Your task to perform on an android device: open app "Messages" (install if not already installed) Image 0: 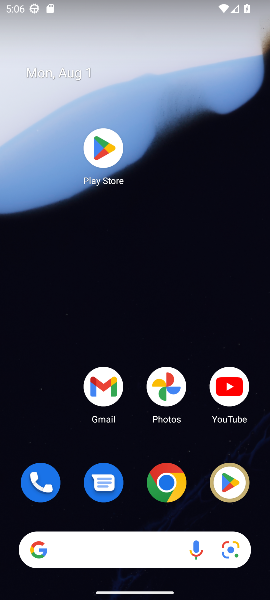
Step 0: click (97, 142)
Your task to perform on an android device: open app "Messages" (install if not already installed) Image 1: 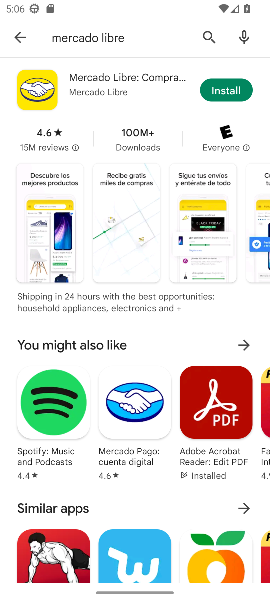
Step 1: click (208, 29)
Your task to perform on an android device: open app "Messages" (install if not already installed) Image 2: 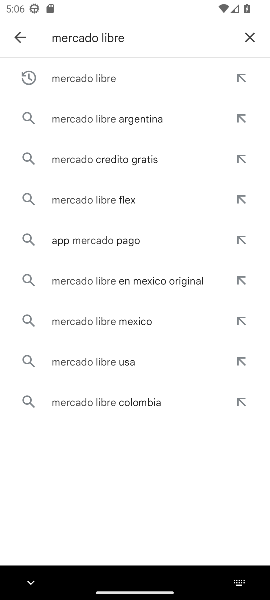
Step 2: click (243, 39)
Your task to perform on an android device: open app "Messages" (install if not already installed) Image 3: 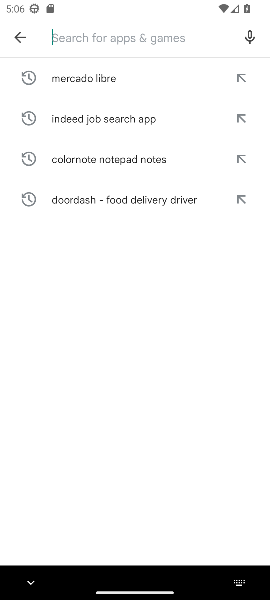
Step 3: type "Messages"
Your task to perform on an android device: open app "Messages" (install if not already installed) Image 4: 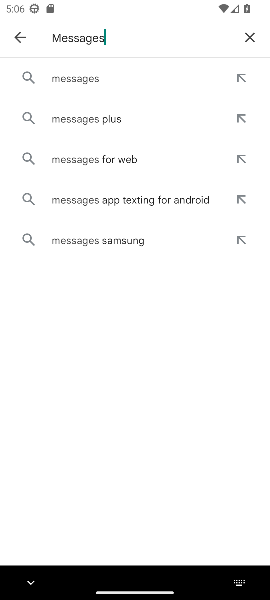
Step 4: click (89, 75)
Your task to perform on an android device: open app "Messages" (install if not already installed) Image 5: 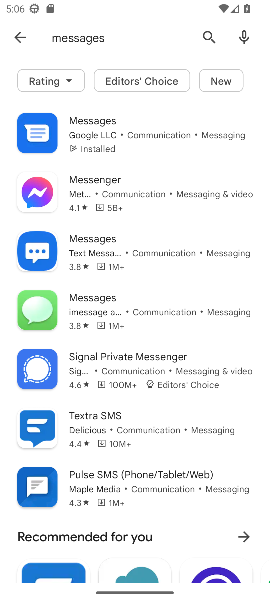
Step 5: click (113, 127)
Your task to perform on an android device: open app "Messages" (install if not already installed) Image 6: 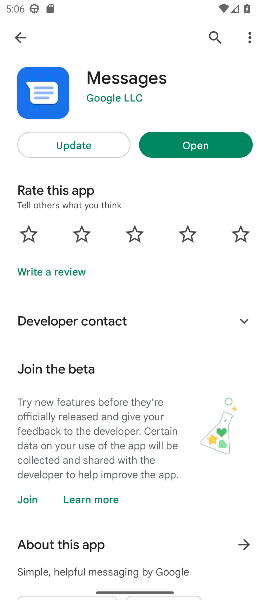
Step 6: click (184, 143)
Your task to perform on an android device: open app "Messages" (install if not already installed) Image 7: 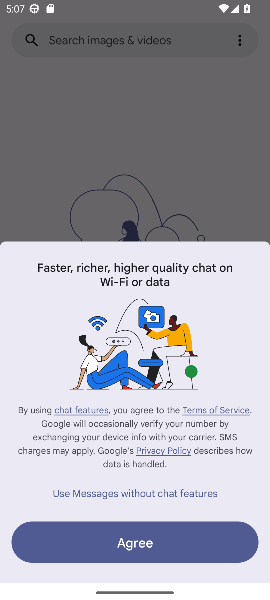
Step 7: task complete